Your task to perform on an android device: move a message to another label in the gmail app Image 0: 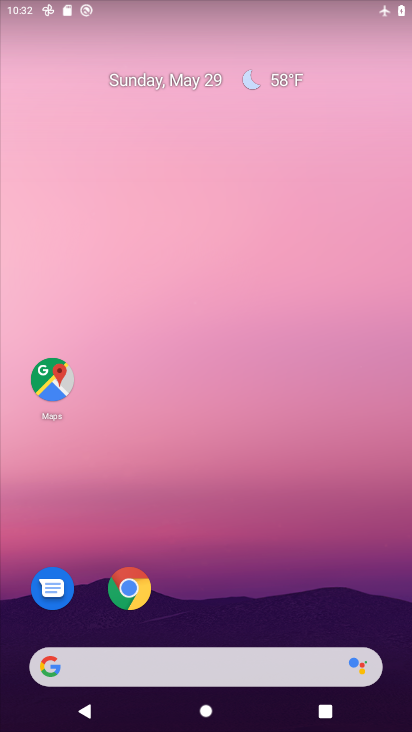
Step 0: drag from (236, 243) to (234, 100)
Your task to perform on an android device: move a message to another label in the gmail app Image 1: 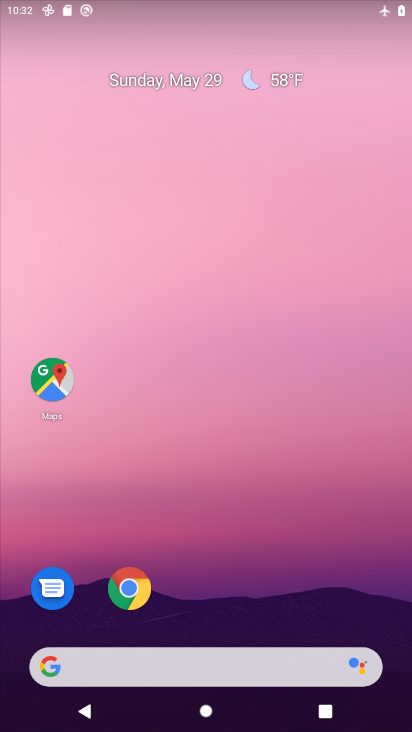
Step 1: drag from (229, 657) to (77, 6)
Your task to perform on an android device: move a message to another label in the gmail app Image 2: 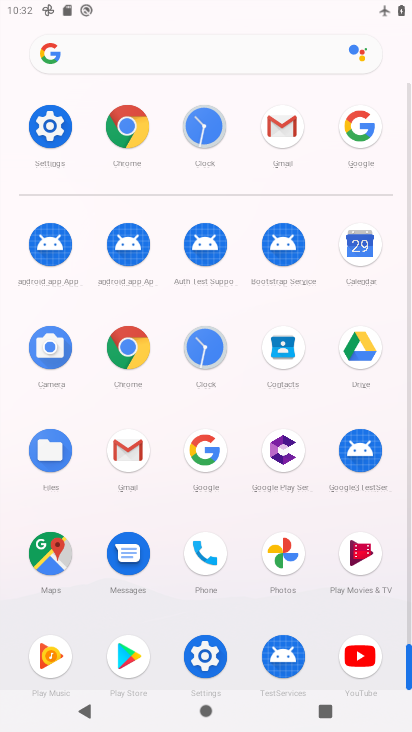
Step 2: click (121, 455)
Your task to perform on an android device: move a message to another label in the gmail app Image 3: 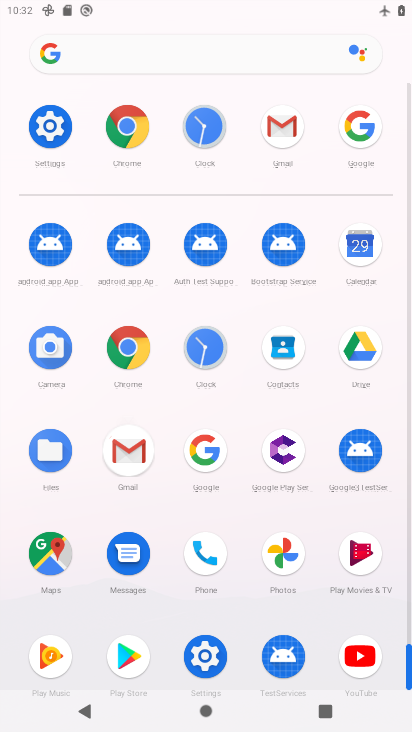
Step 3: click (125, 450)
Your task to perform on an android device: move a message to another label in the gmail app Image 4: 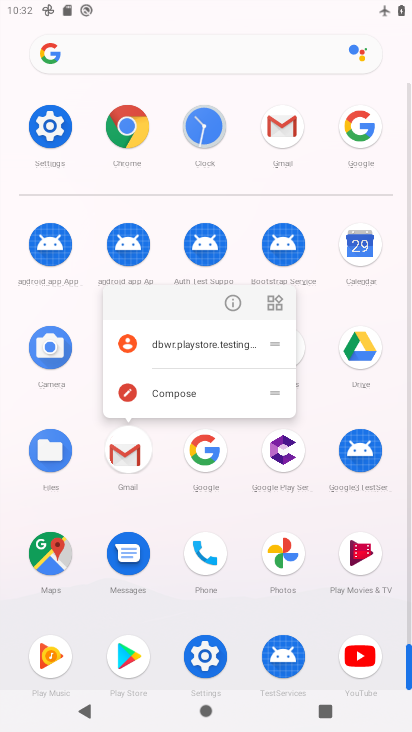
Step 4: click (126, 450)
Your task to perform on an android device: move a message to another label in the gmail app Image 5: 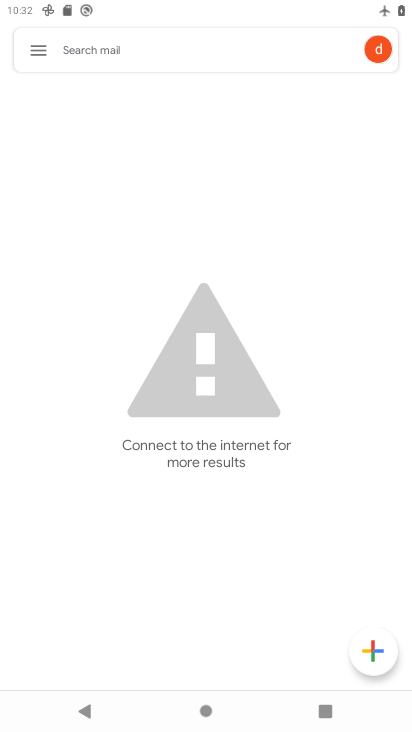
Step 5: click (28, 47)
Your task to perform on an android device: move a message to another label in the gmail app Image 6: 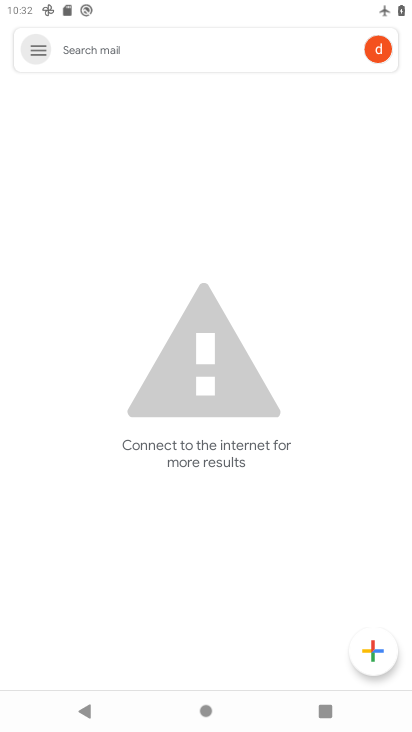
Step 6: click (37, 46)
Your task to perform on an android device: move a message to another label in the gmail app Image 7: 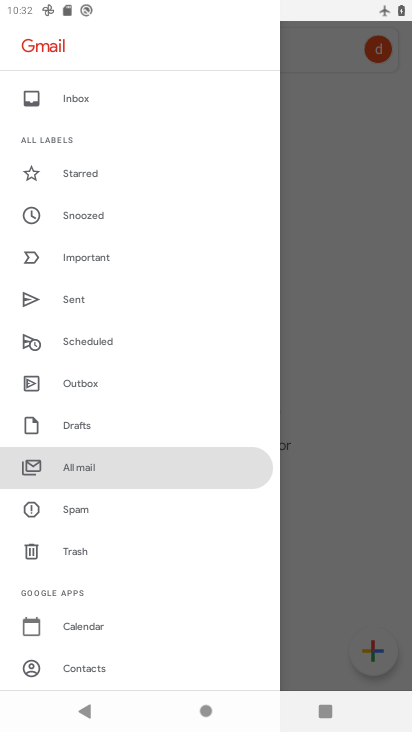
Step 7: click (107, 469)
Your task to perform on an android device: move a message to another label in the gmail app Image 8: 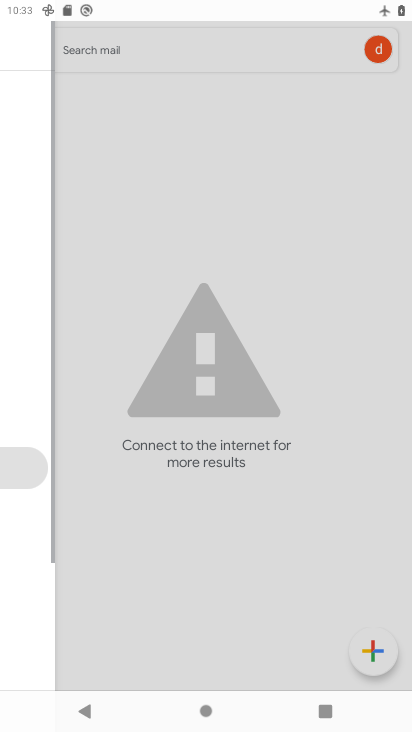
Step 8: click (110, 468)
Your task to perform on an android device: move a message to another label in the gmail app Image 9: 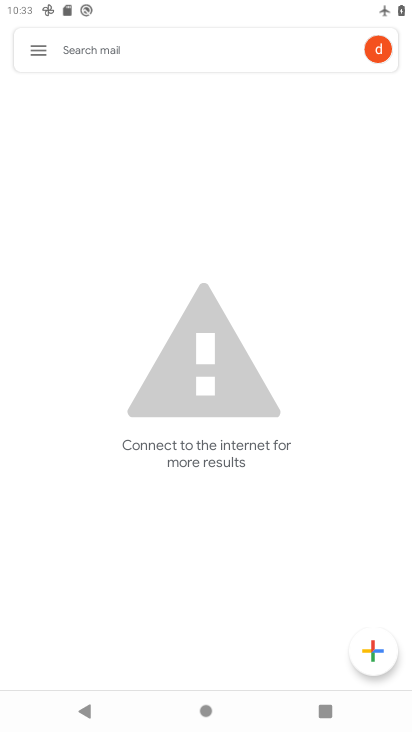
Step 9: click (112, 468)
Your task to perform on an android device: move a message to another label in the gmail app Image 10: 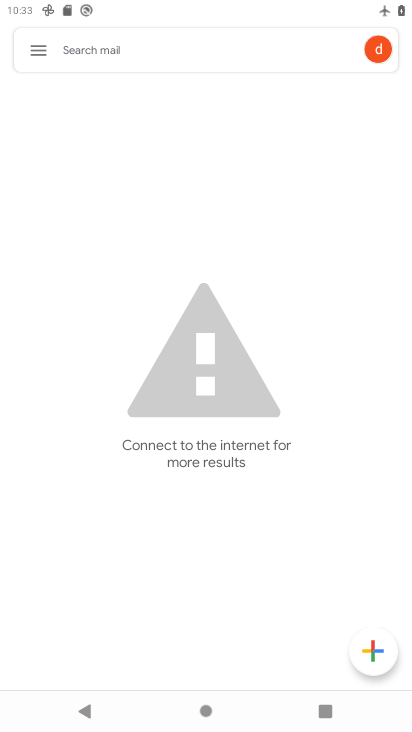
Step 10: task complete